Your task to perform on an android device: Go to calendar. Show me events next week Image 0: 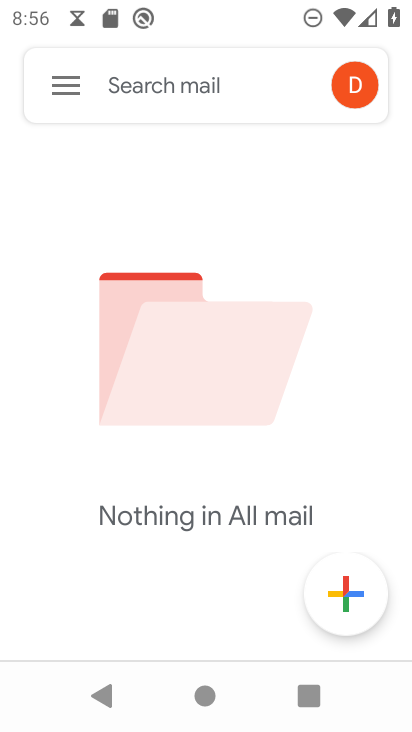
Step 0: press home button
Your task to perform on an android device: Go to calendar. Show me events next week Image 1: 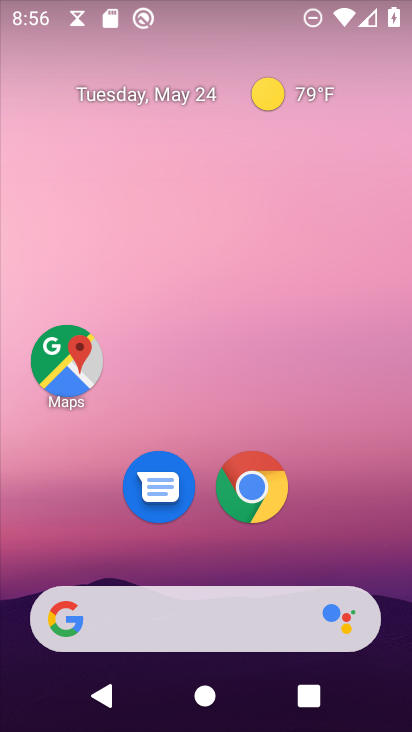
Step 1: drag from (9, 700) to (182, 130)
Your task to perform on an android device: Go to calendar. Show me events next week Image 2: 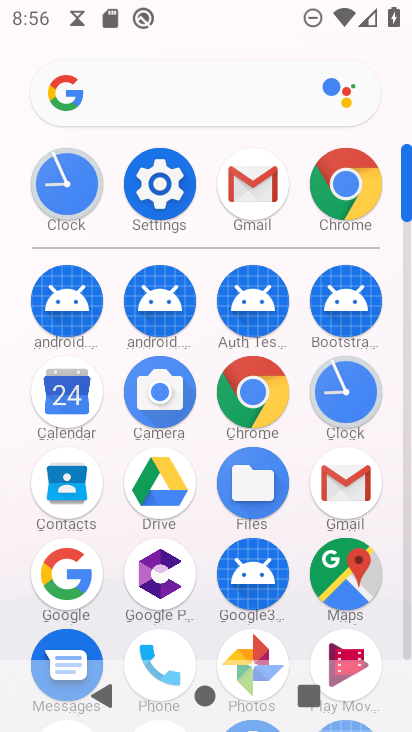
Step 2: click (79, 394)
Your task to perform on an android device: Go to calendar. Show me events next week Image 3: 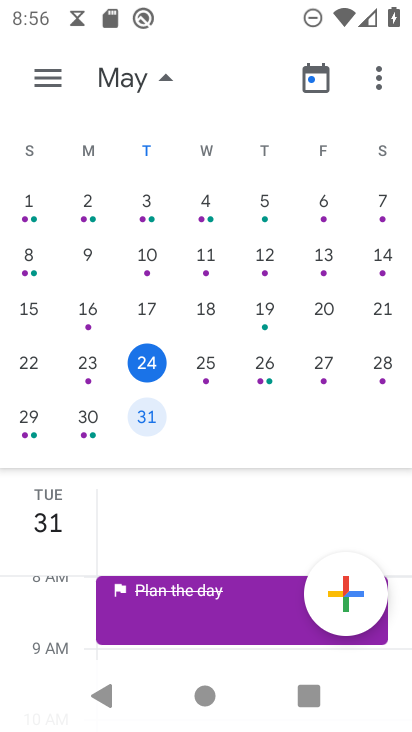
Step 3: click (99, 417)
Your task to perform on an android device: Go to calendar. Show me events next week Image 4: 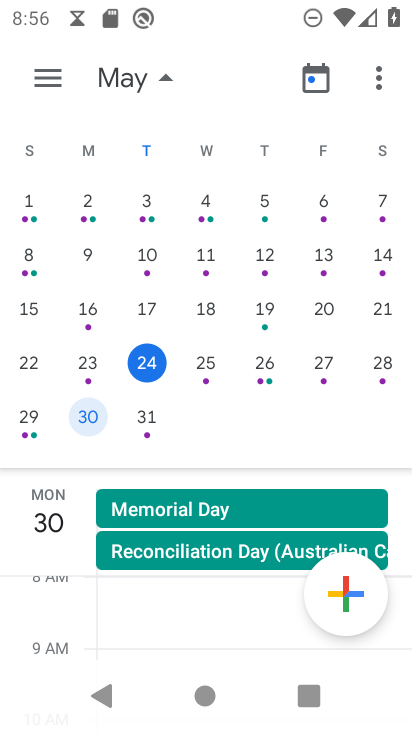
Step 4: click (156, 422)
Your task to perform on an android device: Go to calendar. Show me events next week Image 5: 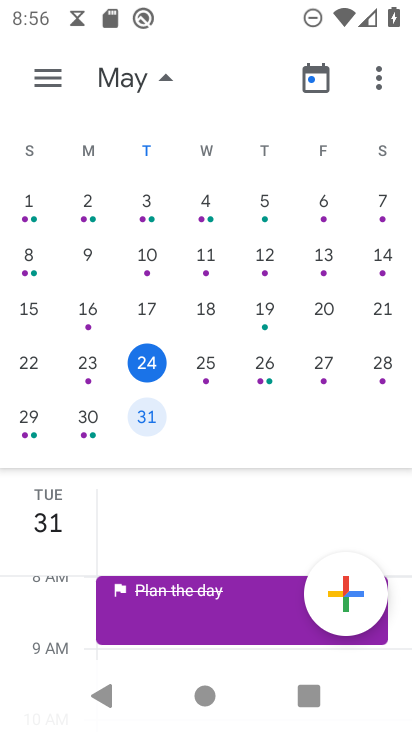
Step 5: task complete